Your task to perform on an android device: allow notifications from all sites in the chrome app Image 0: 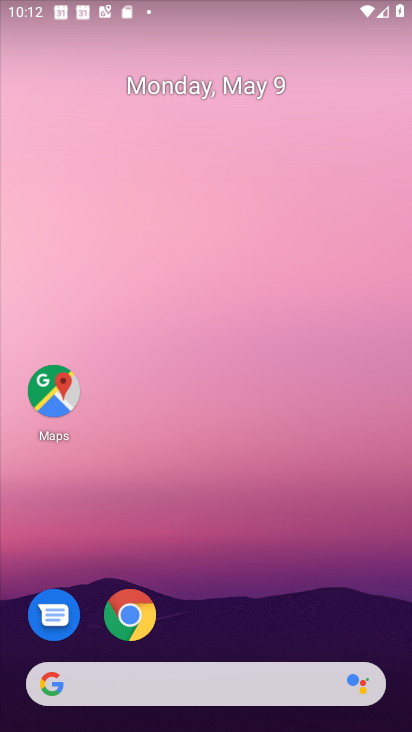
Step 0: drag from (247, 633) to (231, 315)
Your task to perform on an android device: allow notifications from all sites in the chrome app Image 1: 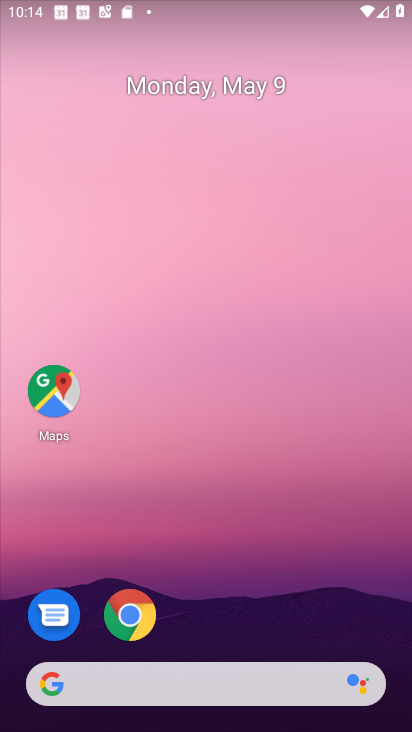
Step 1: drag from (250, 711) to (332, 254)
Your task to perform on an android device: allow notifications from all sites in the chrome app Image 2: 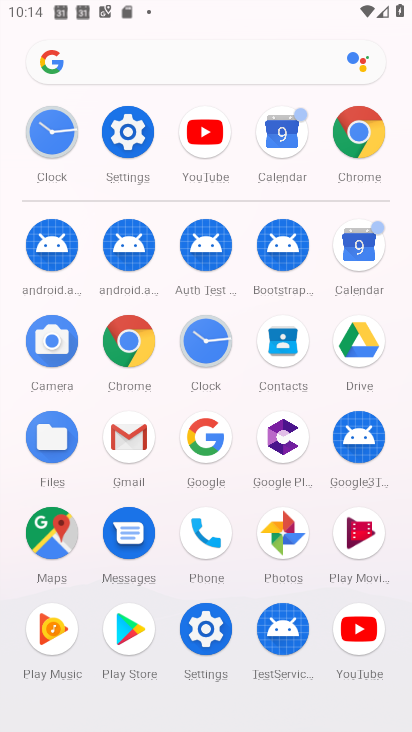
Step 2: click (374, 139)
Your task to perform on an android device: allow notifications from all sites in the chrome app Image 3: 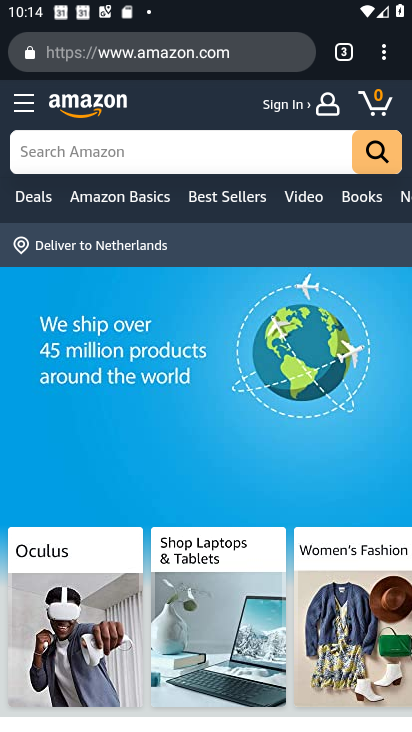
Step 3: click (381, 63)
Your task to perform on an android device: allow notifications from all sites in the chrome app Image 4: 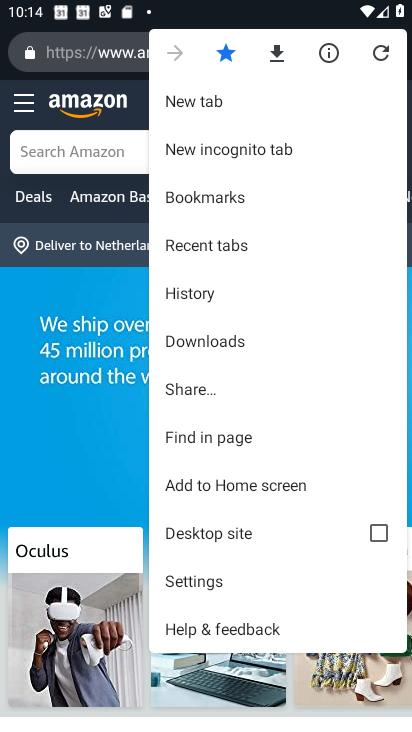
Step 4: click (232, 579)
Your task to perform on an android device: allow notifications from all sites in the chrome app Image 5: 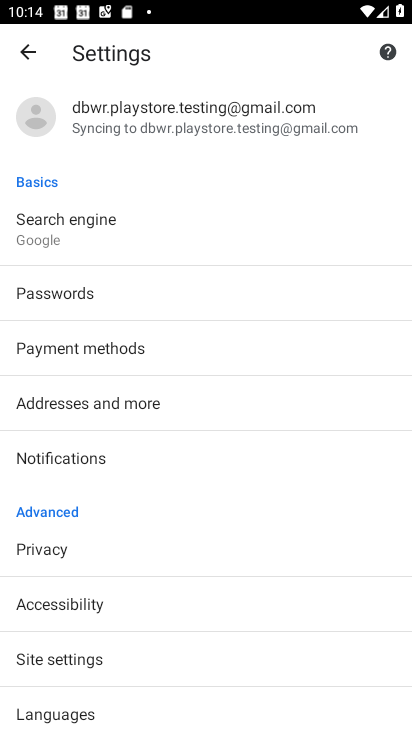
Step 5: click (107, 666)
Your task to perform on an android device: allow notifications from all sites in the chrome app Image 6: 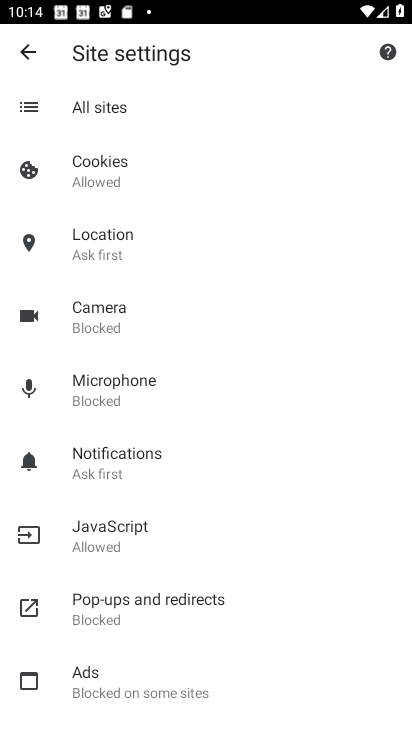
Step 6: click (173, 465)
Your task to perform on an android device: allow notifications from all sites in the chrome app Image 7: 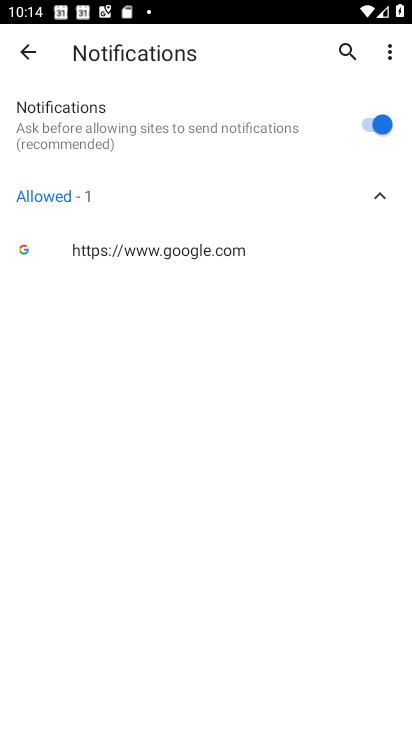
Step 7: click (368, 142)
Your task to perform on an android device: allow notifications from all sites in the chrome app Image 8: 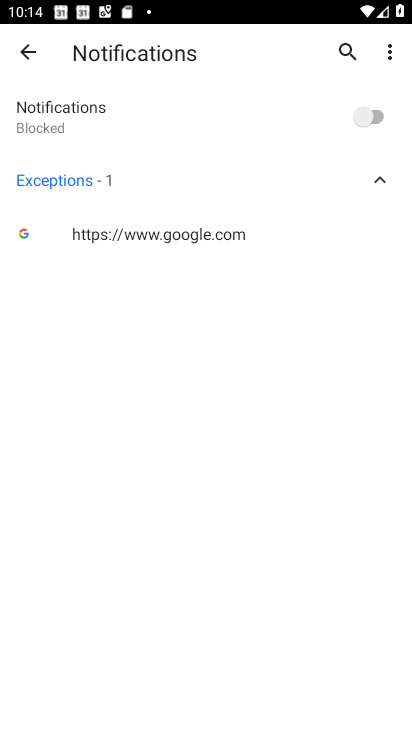
Step 8: click (387, 111)
Your task to perform on an android device: allow notifications from all sites in the chrome app Image 9: 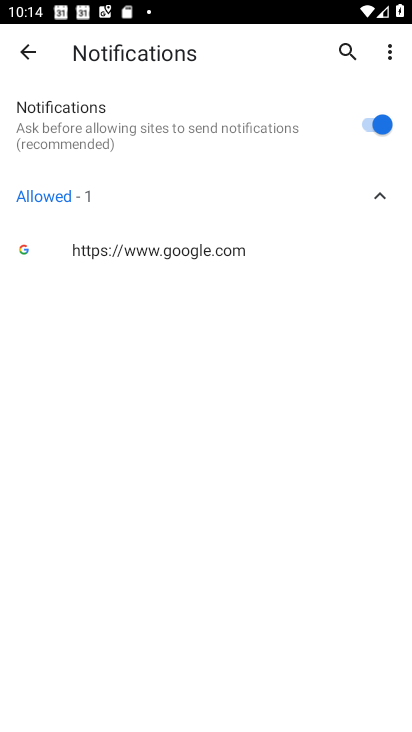
Step 9: task complete